Your task to perform on an android device: Go to wifi settings Image 0: 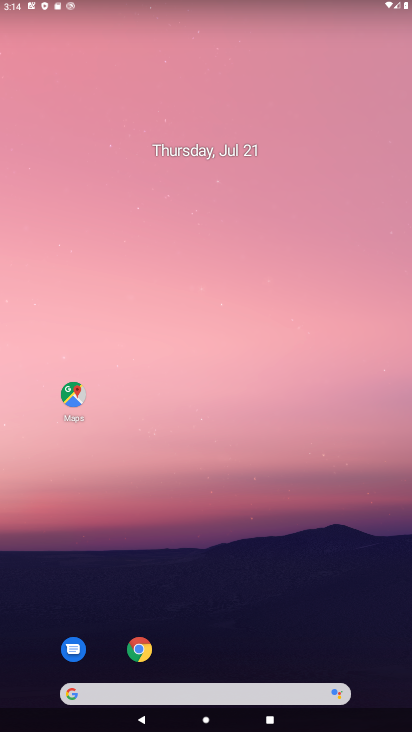
Step 0: drag from (245, 650) to (155, 90)
Your task to perform on an android device: Go to wifi settings Image 1: 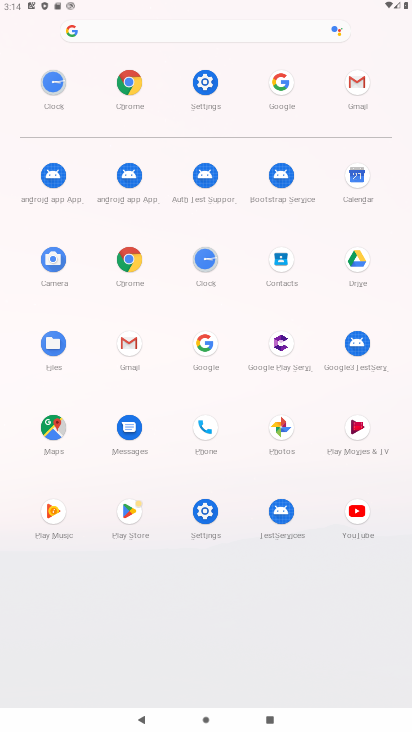
Step 1: click (212, 89)
Your task to perform on an android device: Go to wifi settings Image 2: 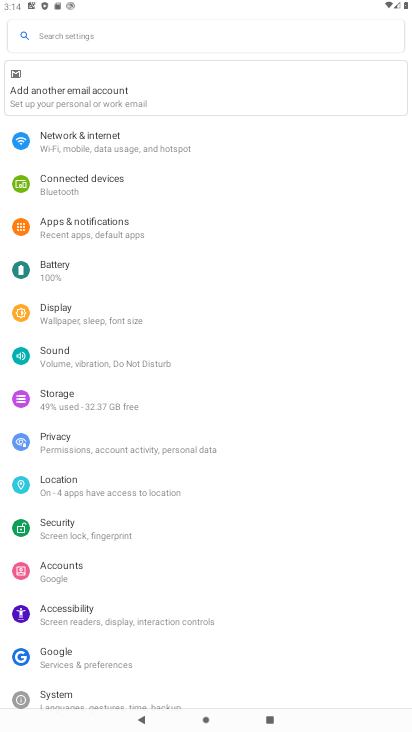
Step 2: click (157, 146)
Your task to perform on an android device: Go to wifi settings Image 3: 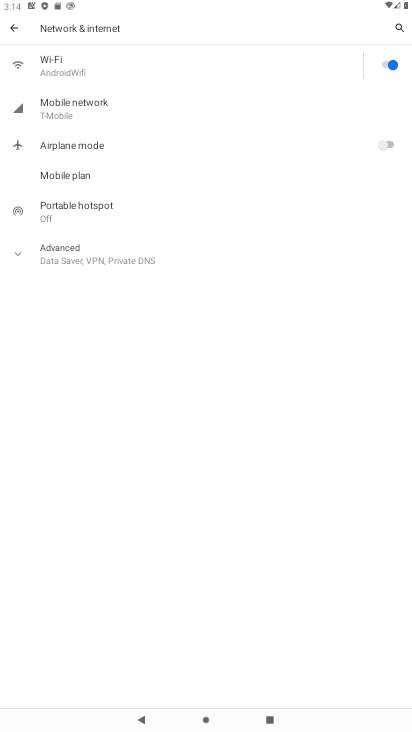
Step 3: click (201, 67)
Your task to perform on an android device: Go to wifi settings Image 4: 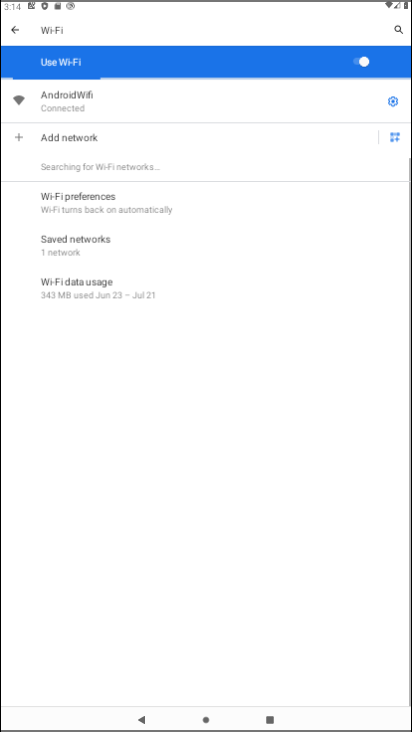
Step 4: task complete